Your task to perform on an android device: Clear the cart on target. Image 0: 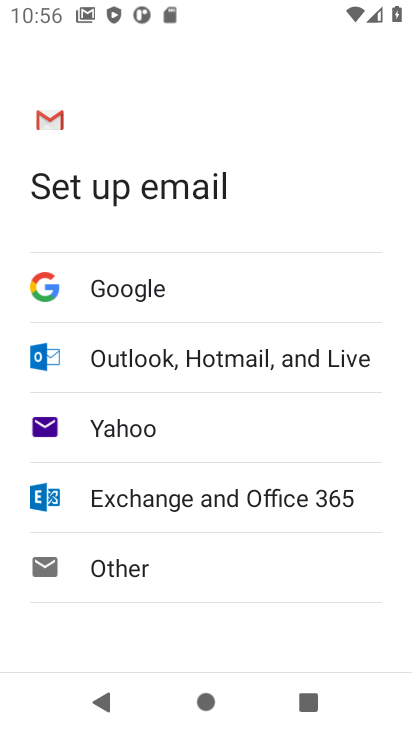
Step 0: press home button
Your task to perform on an android device: Clear the cart on target. Image 1: 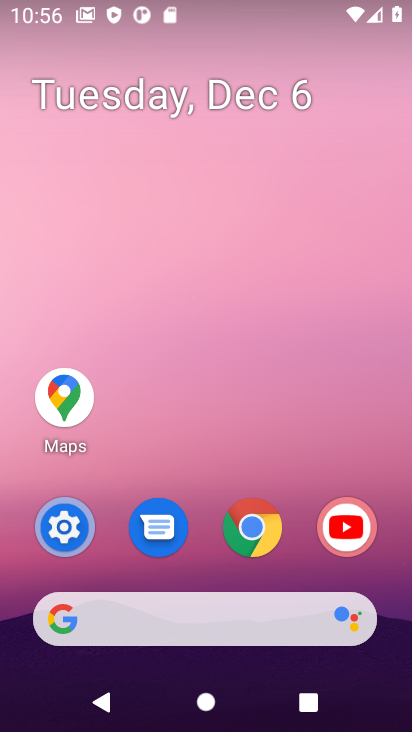
Step 1: drag from (182, 607) to (178, 457)
Your task to perform on an android device: Clear the cart on target. Image 2: 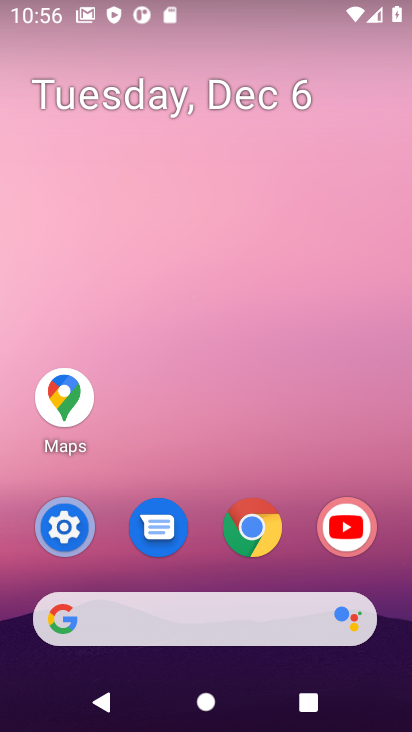
Step 2: click (219, 620)
Your task to perform on an android device: Clear the cart on target. Image 3: 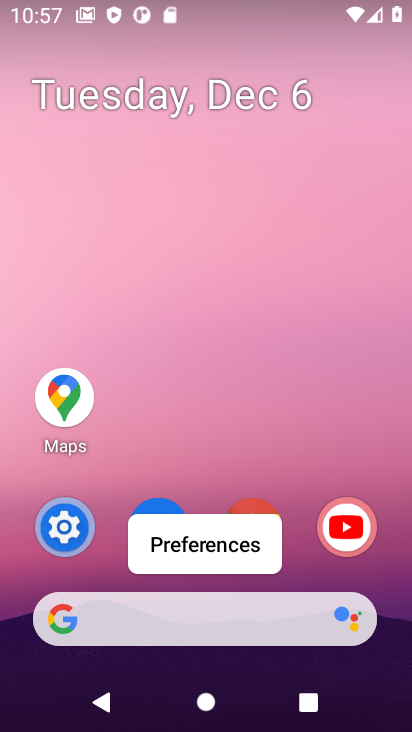
Step 3: drag from (179, 605) to (189, 362)
Your task to perform on an android device: Clear the cart on target. Image 4: 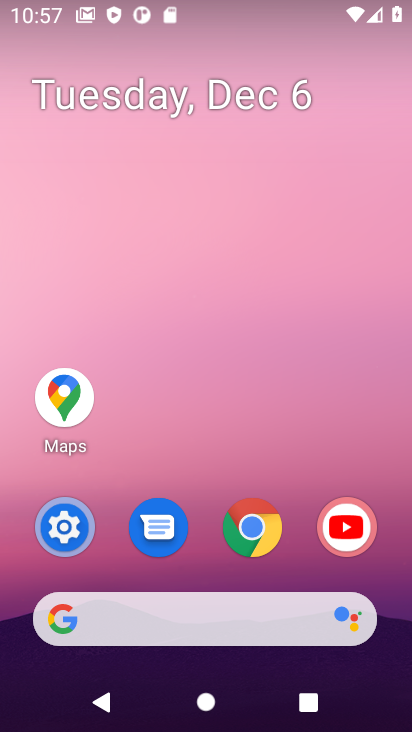
Step 4: drag from (229, 583) to (255, 384)
Your task to perform on an android device: Clear the cart on target. Image 5: 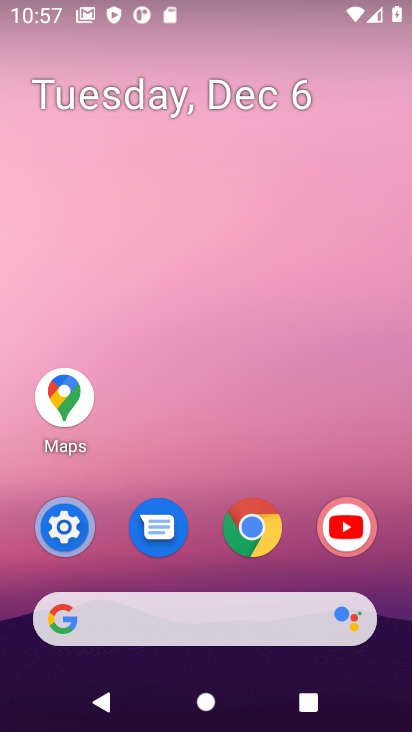
Step 5: drag from (159, 578) to (231, 148)
Your task to perform on an android device: Clear the cart on target. Image 6: 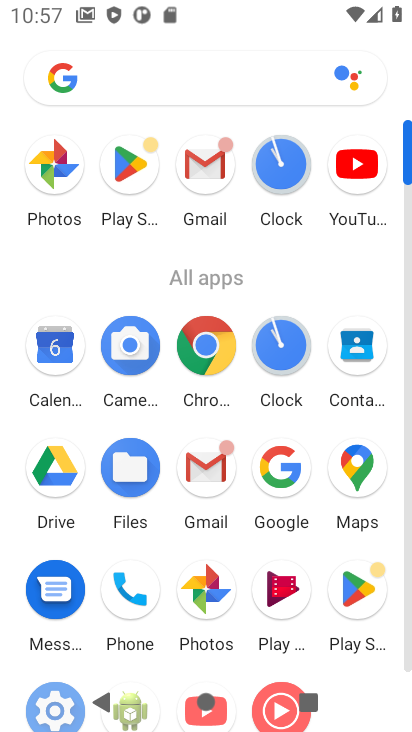
Step 6: click (290, 471)
Your task to perform on an android device: Clear the cart on target. Image 7: 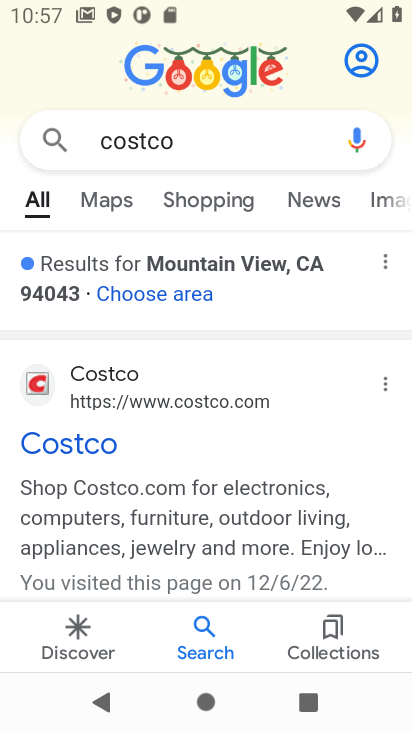
Step 7: click (157, 150)
Your task to perform on an android device: Clear the cart on target. Image 8: 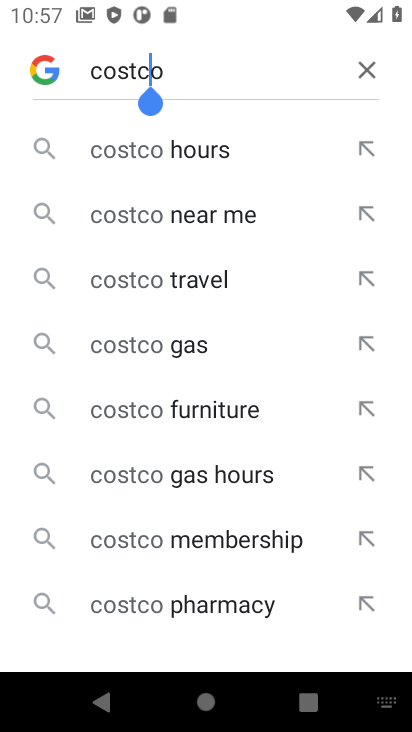
Step 8: click (361, 73)
Your task to perform on an android device: Clear the cart on target. Image 9: 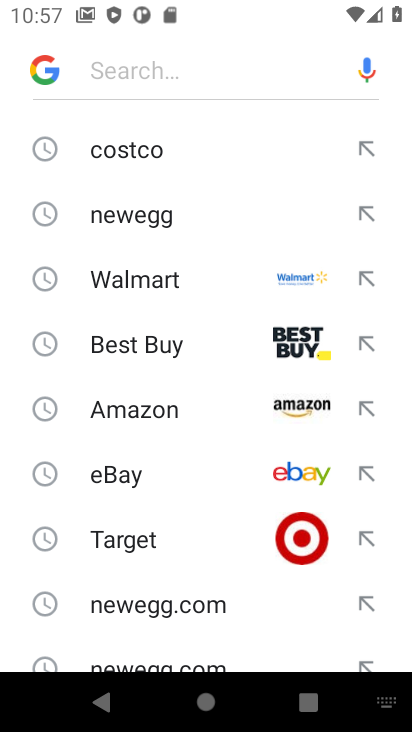
Step 9: click (144, 542)
Your task to perform on an android device: Clear the cart on target. Image 10: 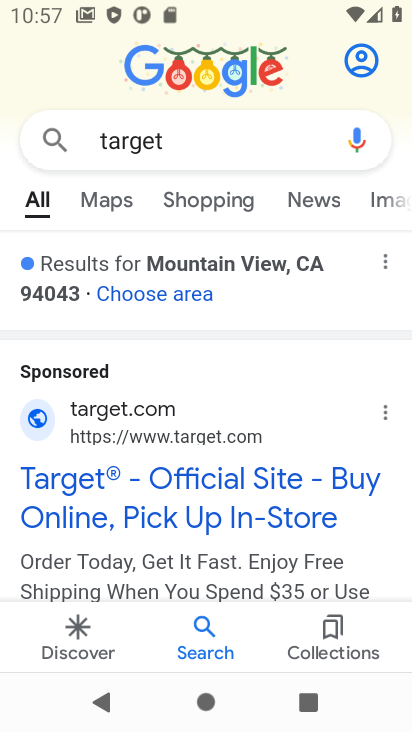
Step 10: click (102, 500)
Your task to perform on an android device: Clear the cart on target. Image 11: 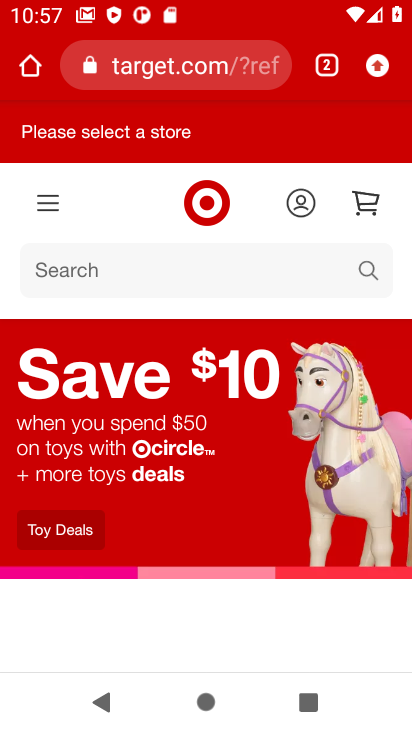
Step 11: task complete